Your task to perform on an android device: Is it going to rain today? Image 0: 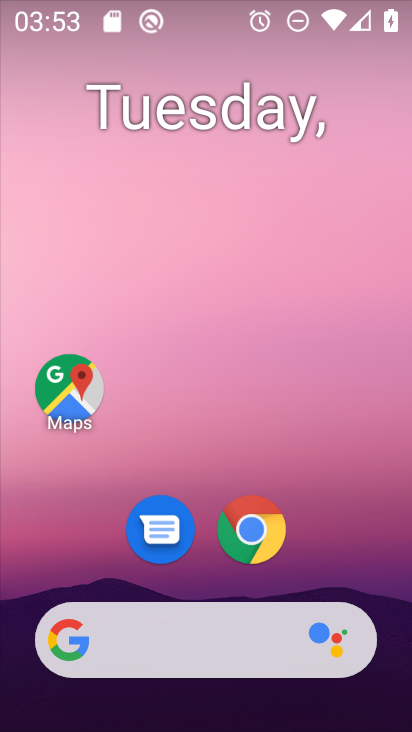
Step 0: click (247, 555)
Your task to perform on an android device: Is it going to rain today? Image 1: 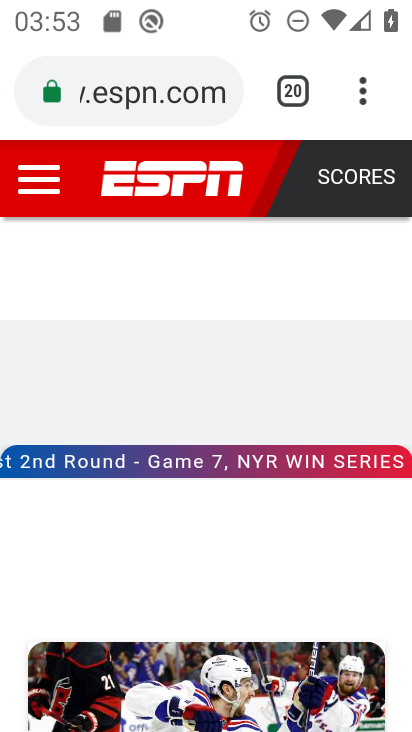
Step 1: click (346, 82)
Your task to perform on an android device: Is it going to rain today? Image 2: 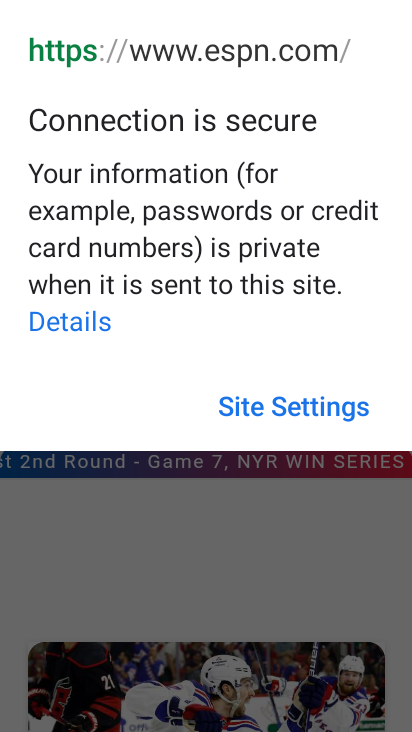
Step 2: press back button
Your task to perform on an android device: Is it going to rain today? Image 3: 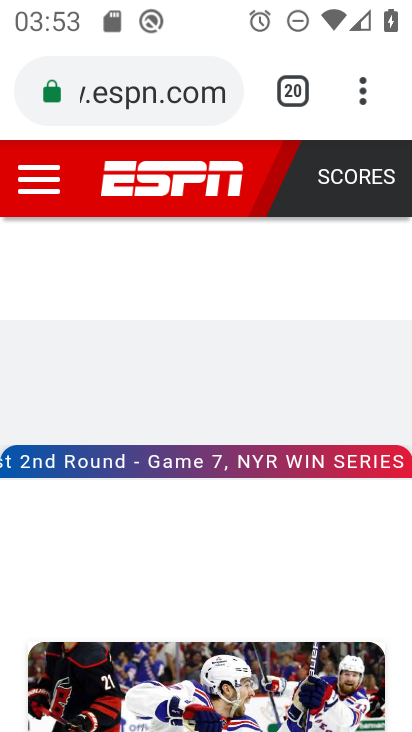
Step 3: click (289, 82)
Your task to perform on an android device: Is it going to rain today? Image 4: 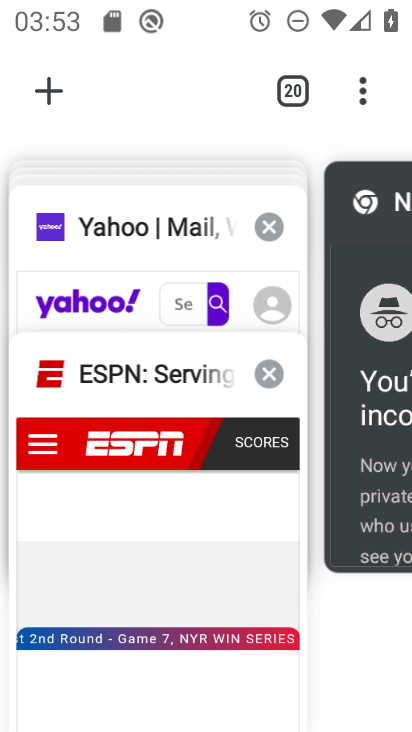
Step 4: drag from (163, 220) to (160, 622)
Your task to perform on an android device: Is it going to rain today? Image 5: 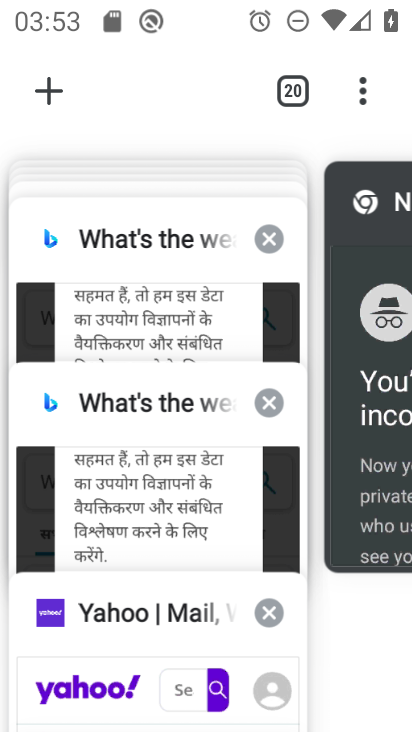
Step 5: drag from (200, 233) to (200, 629)
Your task to perform on an android device: Is it going to rain today? Image 6: 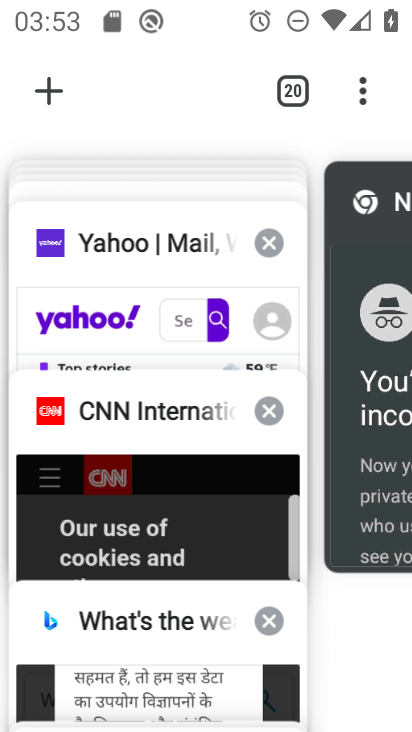
Step 6: drag from (160, 244) to (206, 615)
Your task to perform on an android device: Is it going to rain today? Image 7: 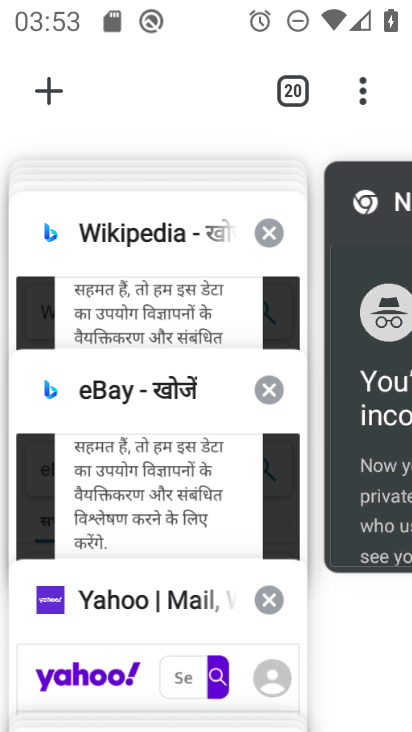
Step 7: drag from (192, 248) to (174, 625)
Your task to perform on an android device: Is it going to rain today? Image 8: 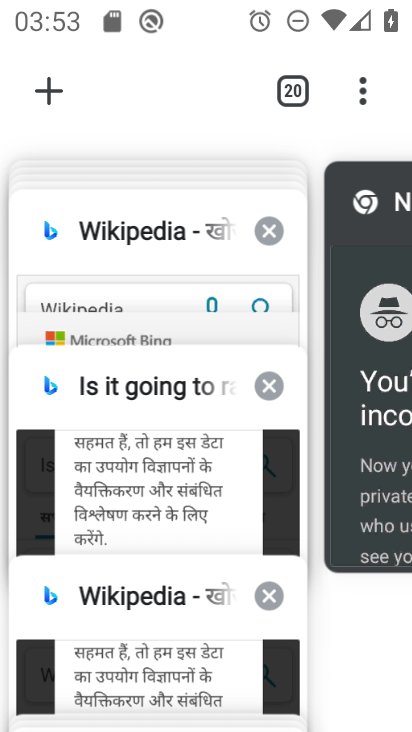
Step 8: drag from (144, 252) to (179, 611)
Your task to perform on an android device: Is it going to rain today? Image 9: 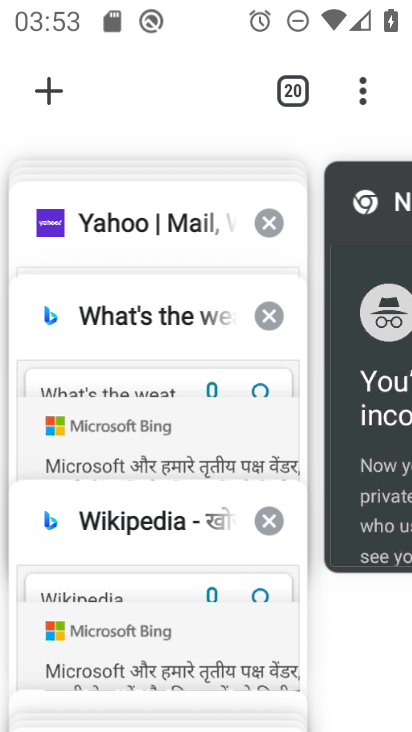
Step 9: drag from (157, 609) to (192, 269)
Your task to perform on an android device: Is it going to rain today? Image 10: 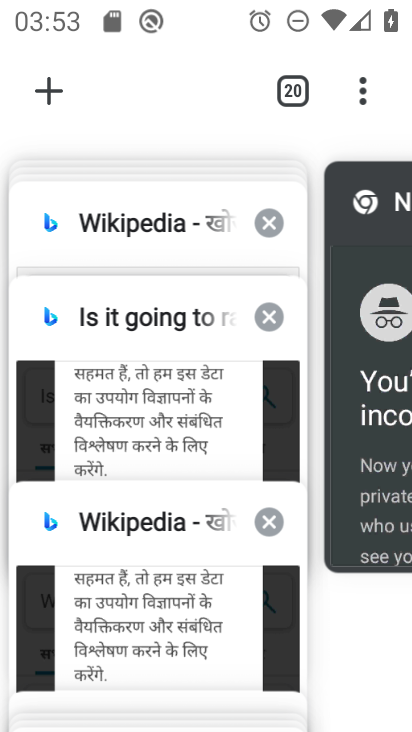
Step 10: click (152, 362)
Your task to perform on an android device: Is it going to rain today? Image 11: 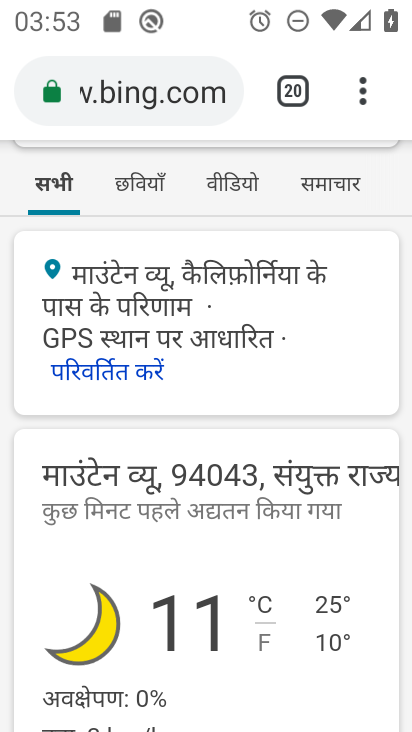
Step 11: drag from (226, 432) to (215, 686)
Your task to perform on an android device: Is it going to rain today? Image 12: 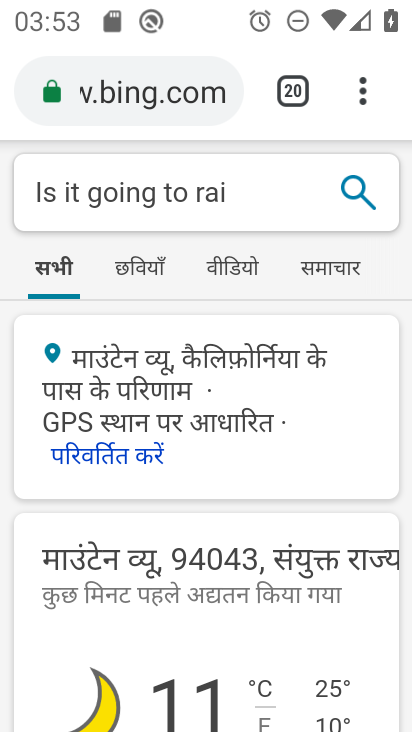
Step 12: click (355, 91)
Your task to perform on an android device: Is it going to rain today? Image 13: 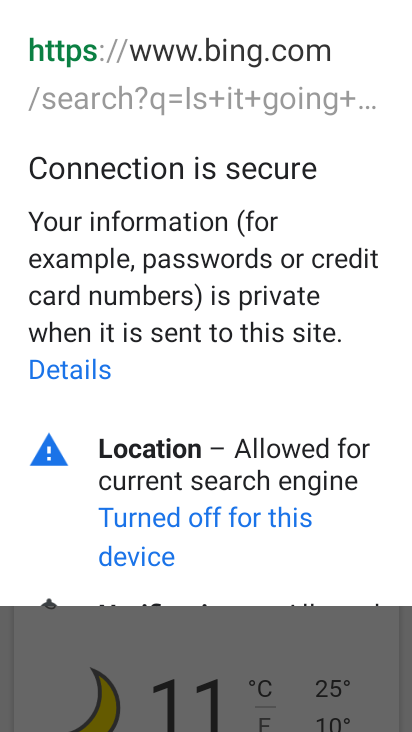
Step 13: task complete